Your task to perform on an android device: turn on priority inbox in the gmail app Image 0: 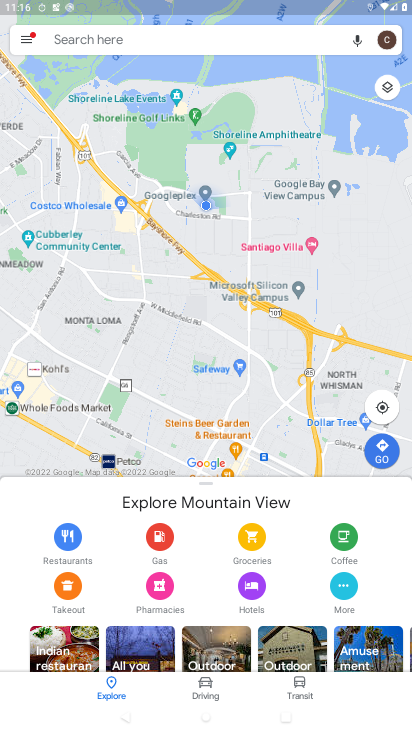
Step 0: press home button
Your task to perform on an android device: turn on priority inbox in the gmail app Image 1: 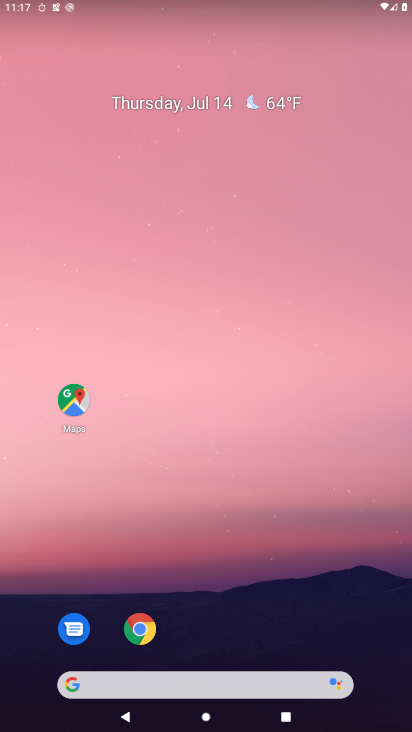
Step 1: drag from (148, 646) to (149, 395)
Your task to perform on an android device: turn on priority inbox in the gmail app Image 2: 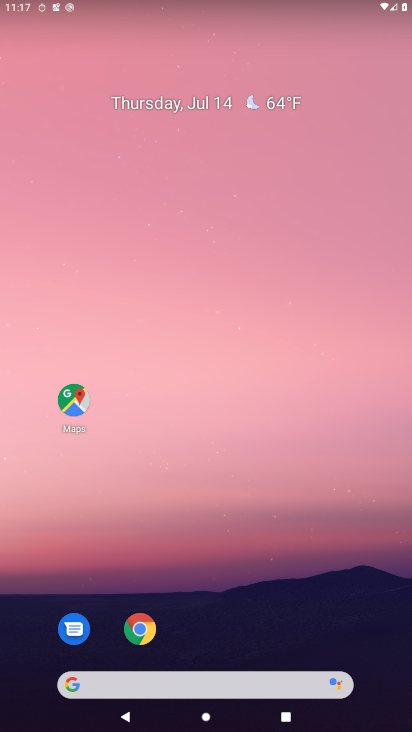
Step 2: drag from (232, 677) to (252, 245)
Your task to perform on an android device: turn on priority inbox in the gmail app Image 3: 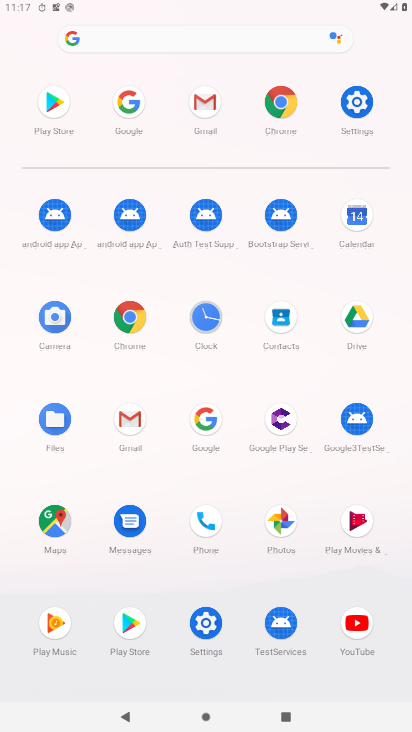
Step 3: click (127, 421)
Your task to perform on an android device: turn on priority inbox in the gmail app Image 4: 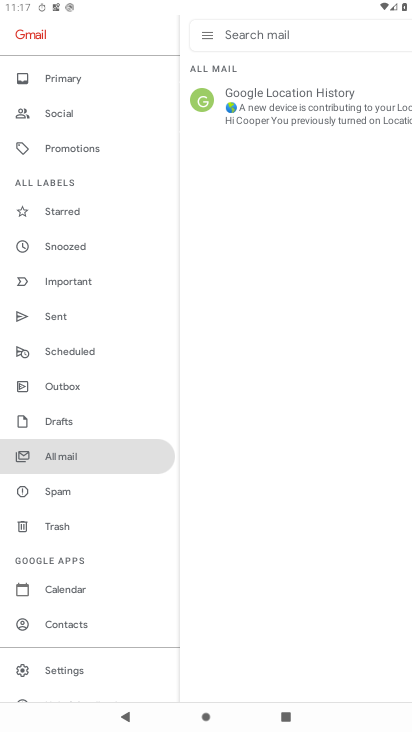
Step 4: click (66, 672)
Your task to perform on an android device: turn on priority inbox in the gmail app Image 5: 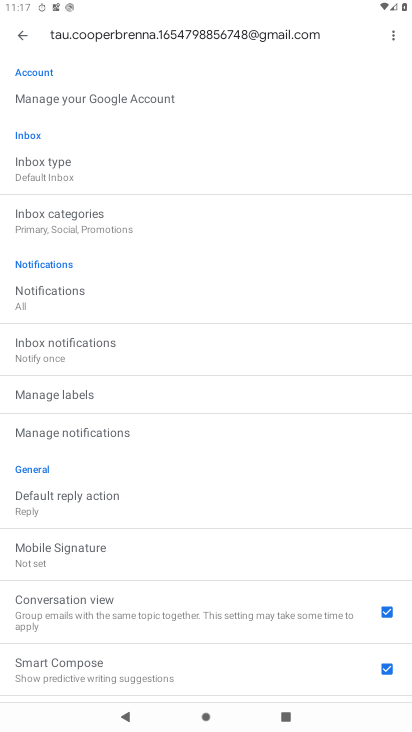
Step 5: click (62, 176)
Your task to perform on an android device: turn on priority inbox in the gmail app Image 6: 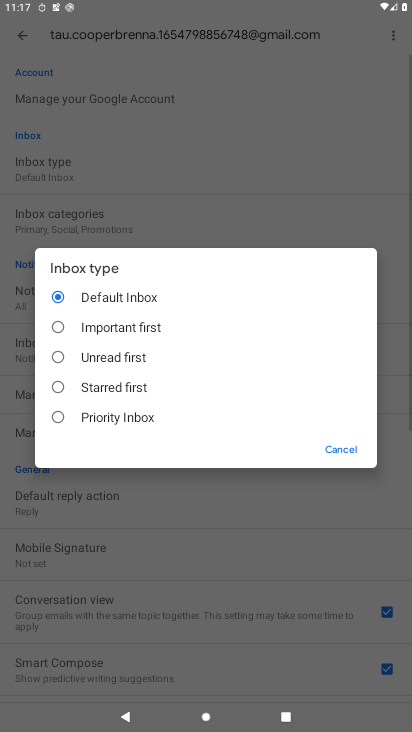
Step 6: click (119, 417)
Your task to perform on an android device: turn on priority inbox in the gmail app Image 7: 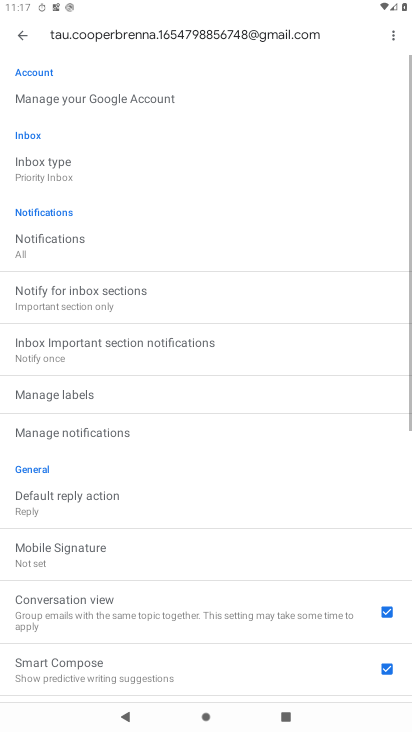
Step 7: task complete